Your task to perform on an android device: check android version Image 0: 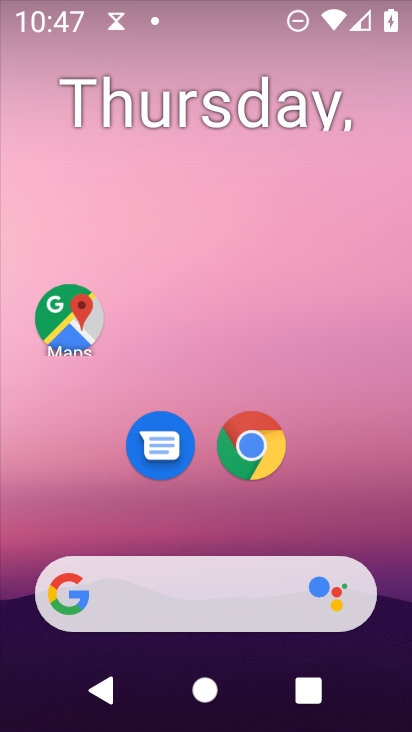
Step 0: drag from (224, 720) to (238, 65)
Your task to perform on an android device: check android version Image 1: 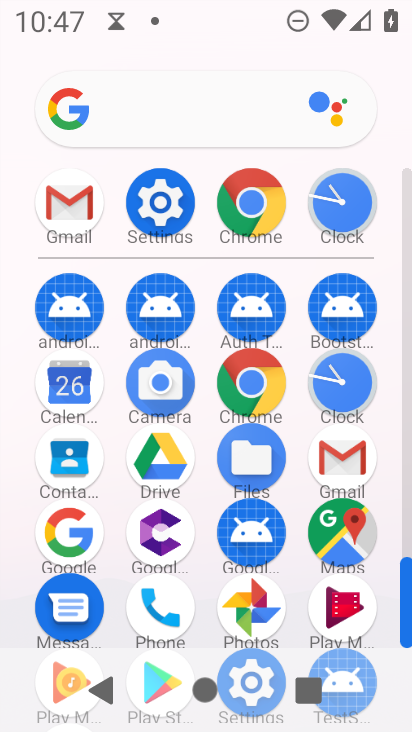
Step 1: click (153, 202)
Your task to perform on an android device: check android version Image 2: 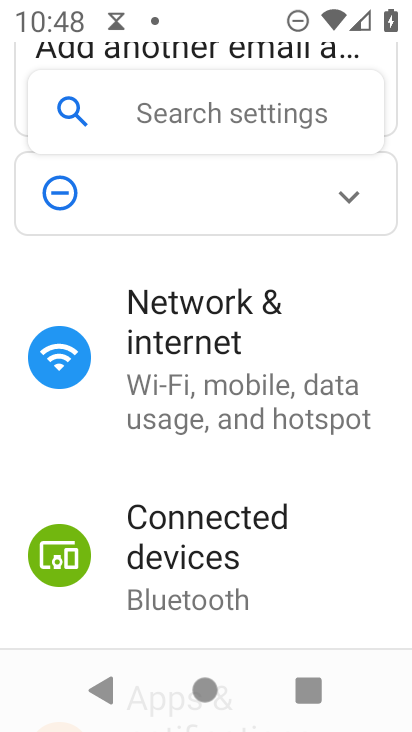
Step 2: drag from (248, 635) to (222, 114)
Your task to perform on an android device: check android version Image 3: 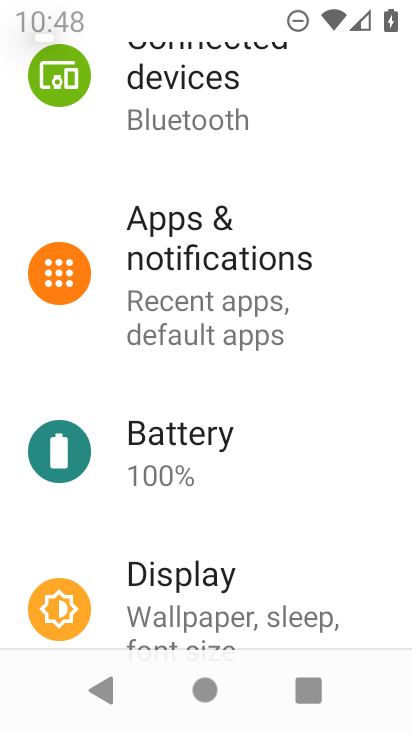
Step 3: drag from (268, 641) to (245, 45)
Your task to perform on an android device: check android version Image 4: 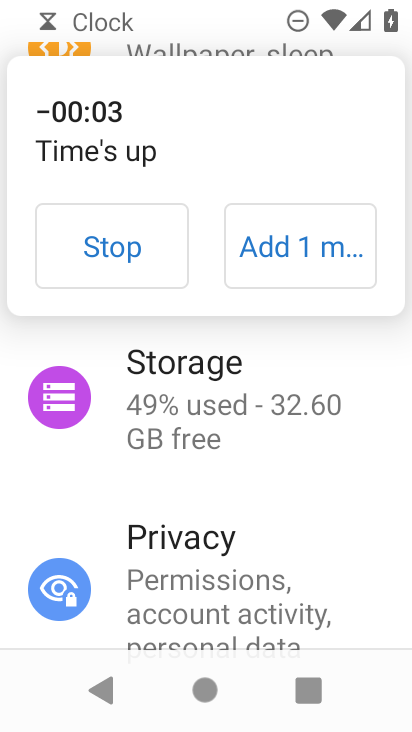
Step 4: drag from (322, 636) to (294, 63)
Your task to perform on an android device: check android version Image 5: 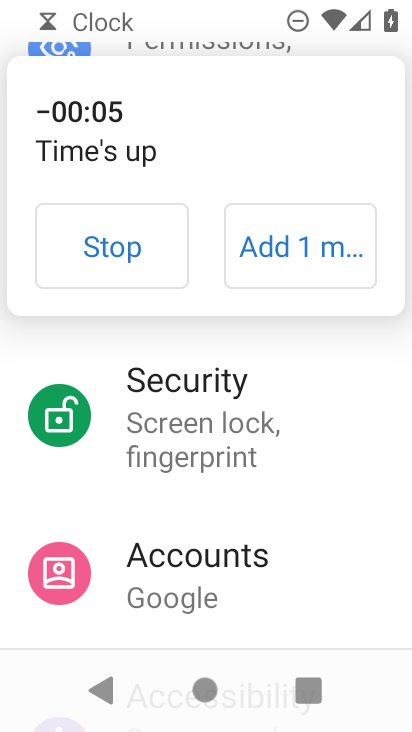
Step 5: drag from (302, 630) to (286, 56)
Your task to perform on an android device: check android version Image 6: 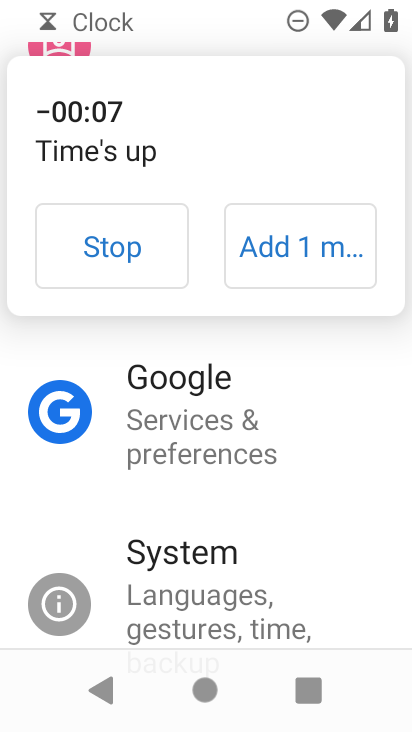
Step 6: drag from (297, 638) to (283, 55)
Your task to perform on an android device: check android version Image 7: 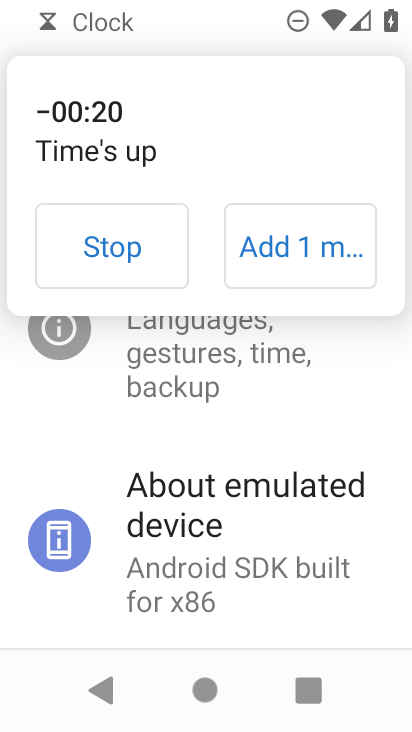
Step 7: click (202, 581)
Your task to perform on an android device: check android version Image 8: 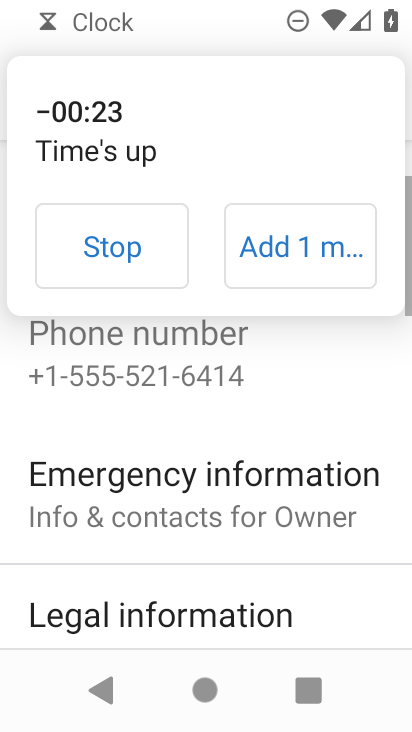
Step 8: click (127, 254)
Your task to perform on an android device: check android version Image 9: 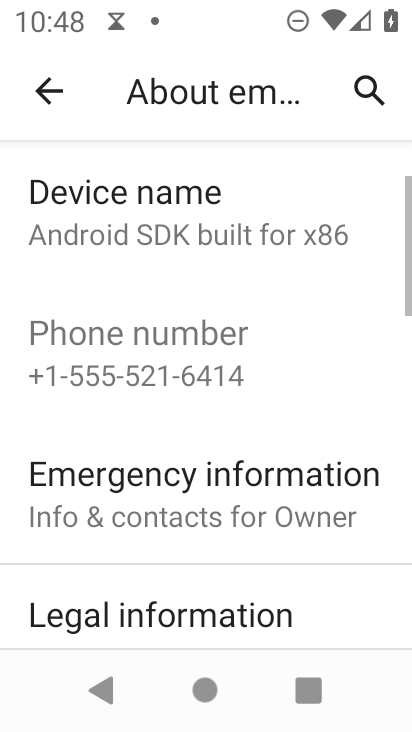
Step 9: drag from (335, 620) to (335, 134)
Your task to perform on an android device: check android version Image 10: 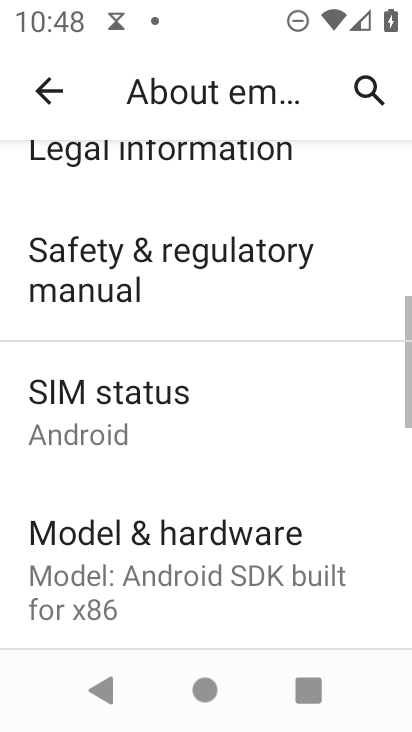
Step 10: drag from (174, 625) to (169, 174)
Your task to perform on an android device: check android version Image 11: 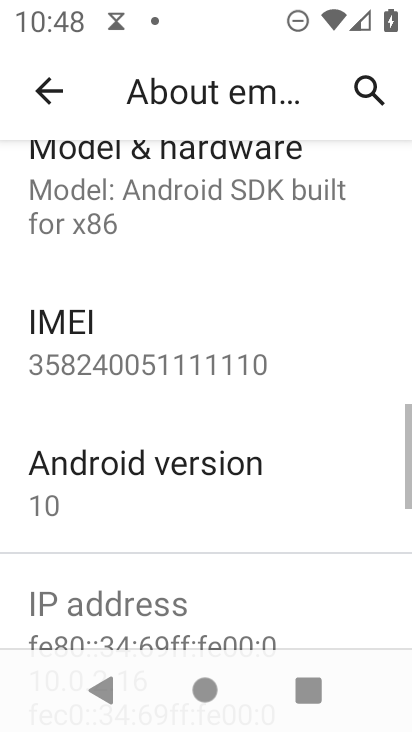
Step 11: click (153, 456)
Your task to perform on an android device: check android version Image 12: 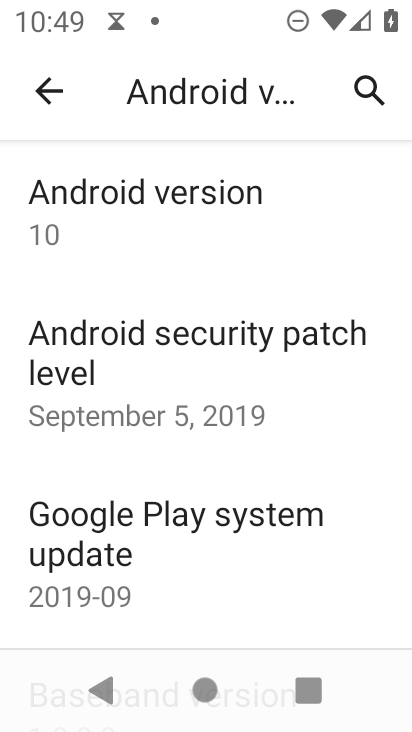
Step 12: click (117, 198)
Your task to perform on an android device: check android version Image 13: 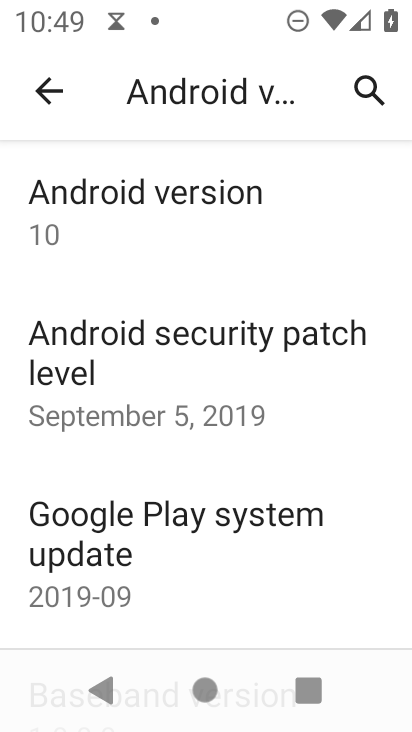
Step 13: task complete